Your task to perform on an android device: turn on priority inbox in the gmail app Image 0: 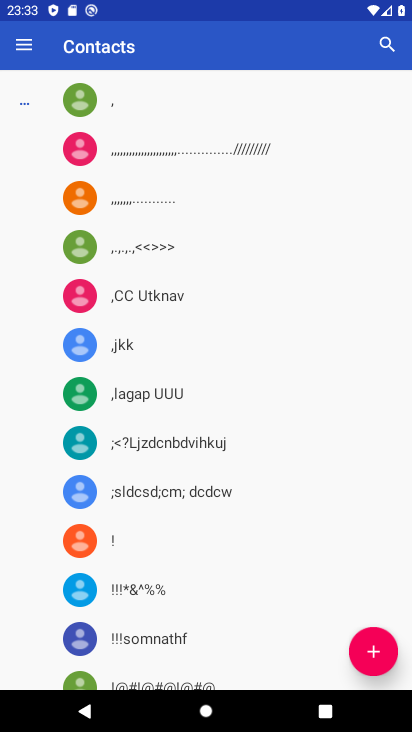
Step 0: press home button
Your task to perform on an android device: turn on priority inbox in the gmail app Image 1: 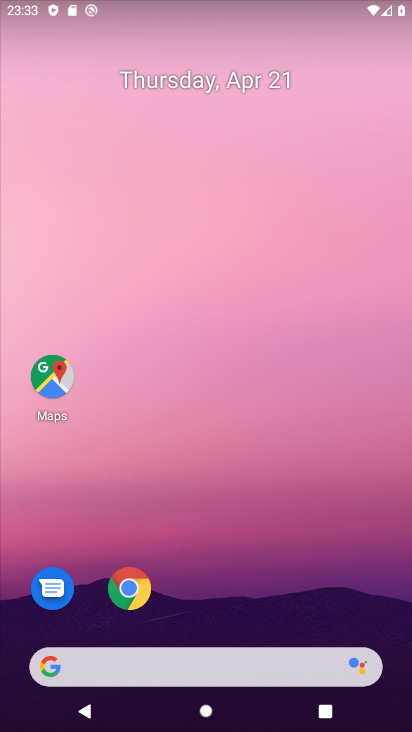
Step 1: drag from (196, 288) to (222, 32)
Your task to perform on an android device: turn on priority inbox in the gmail app Image 2: 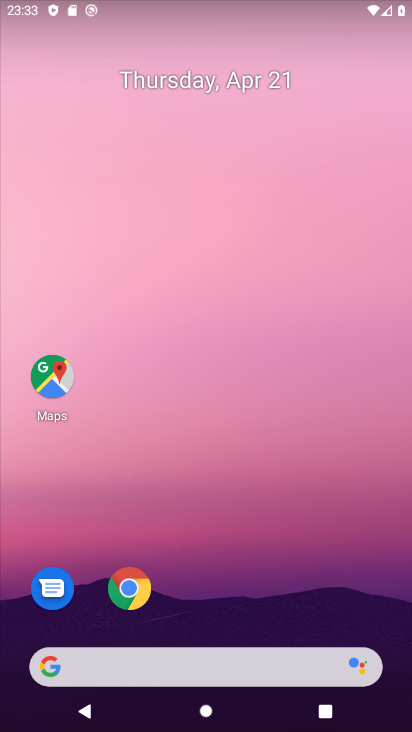
Step 2: drag from (202, 617) to (268, 82)
Your task to perform on an android device: turn on priority inbox in the gmail app Image 3: 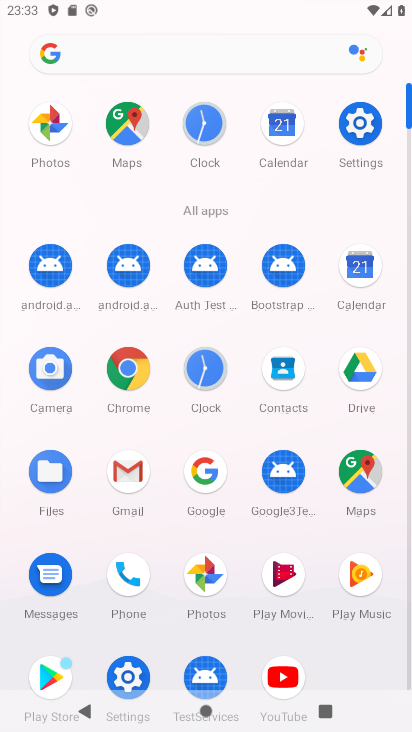
Step 3: click (120, 479)
Your task to perform on an android device: turn on priority inbox in the gmail app Image 4: 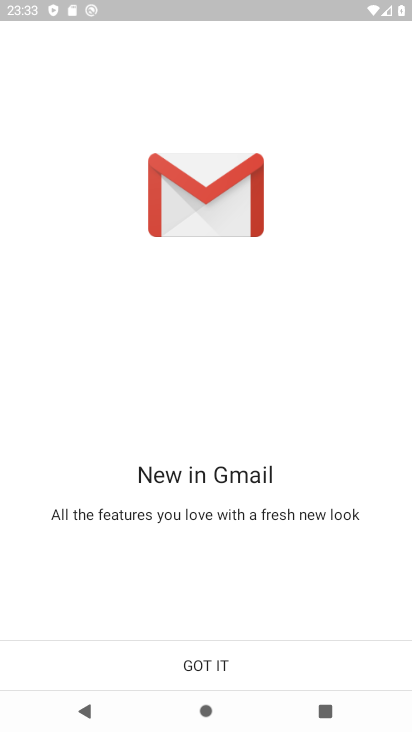
Step 4: click (199, 665)
Your task to perform on an android device: turn on priority inbox in the gmail app Image 5: 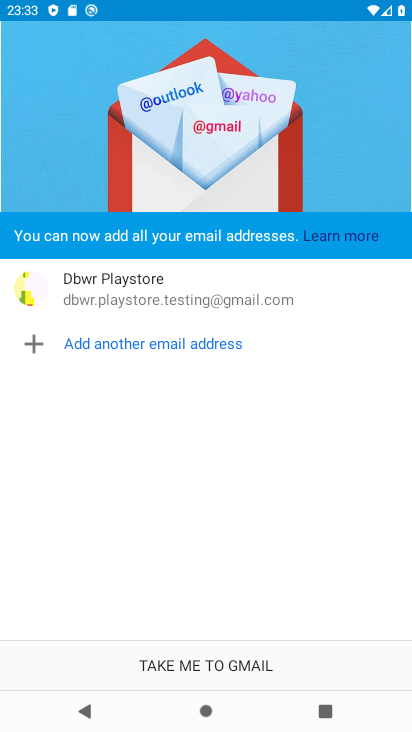
Step 5: click (199, 665)
Your task to perform on an android device: turn on priority inbox in the gmail app Image 6: 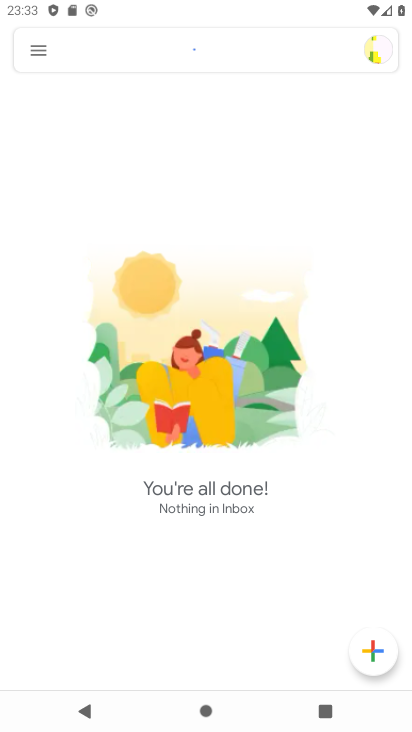
Step 6: click (40, 48)
Your task to perform on an android device: turn on priority inbox in the gmail app Image 7: 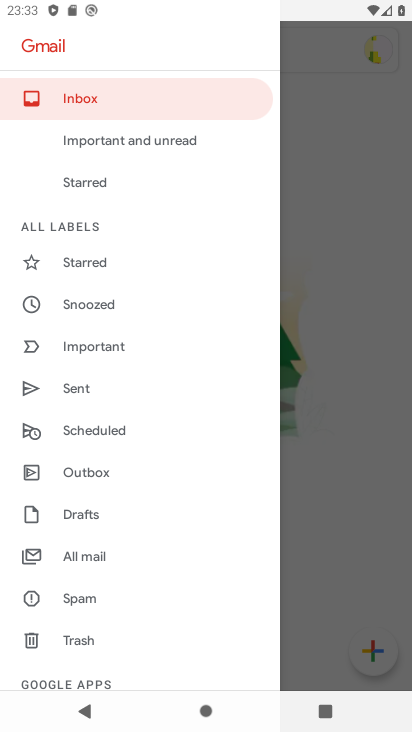
Step 7: drag from (123, 564) to (161, 225)
Your task to perform on an android device: turn on priority inbox in the gmail app Image 8: 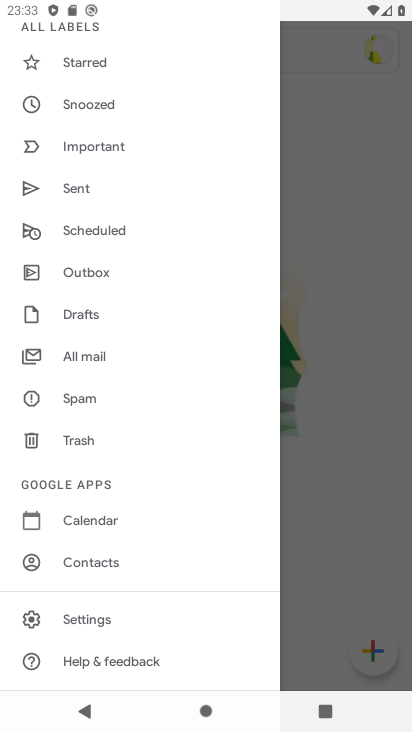
Step 8: click (106, 622)
Your task to perform on an android device: turn on priority inbox in the gmail app Image 9: 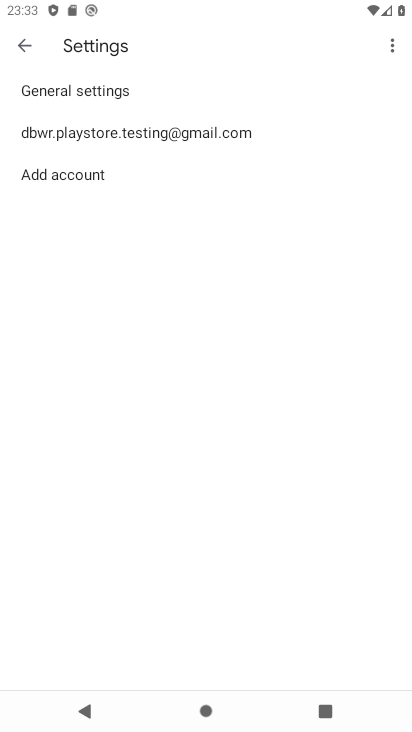
Step 9: click (178, 130)
Your task to perform on an android device: turn on priority inbox in the gmail app Image 10: 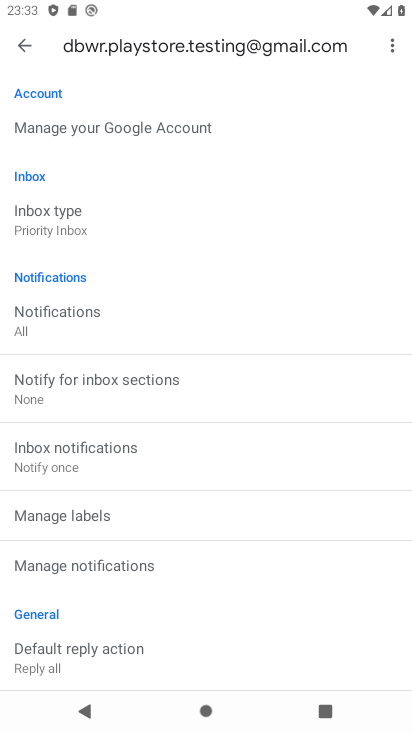
Step 10: click (120, 226)
Your task to perform on an android device: turn on priority inbox in the gmail app Image 11: 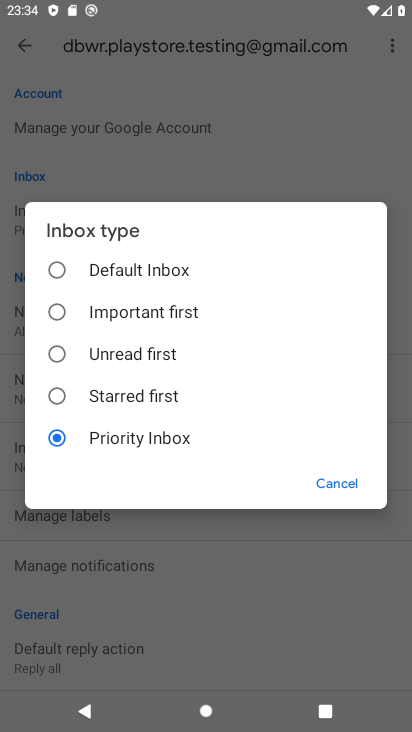
Step 11: task complete